Your task to perform on an android device: Turn off the flashlight Image 0: 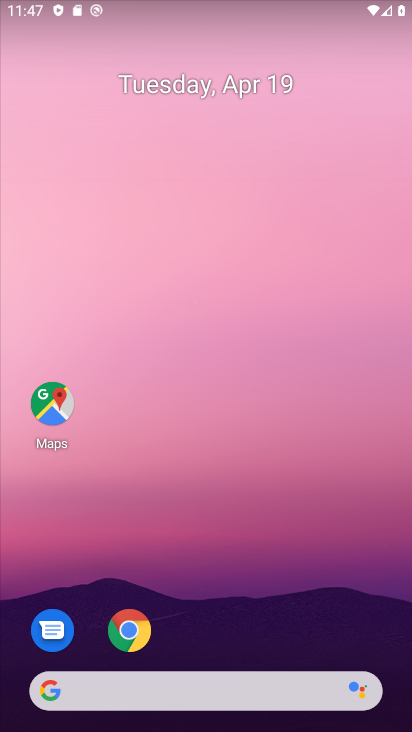
Step 0: drag from (244, 136) to (265, 438)
Your task to perform on an android device: Turn off the flashlight Image 1: 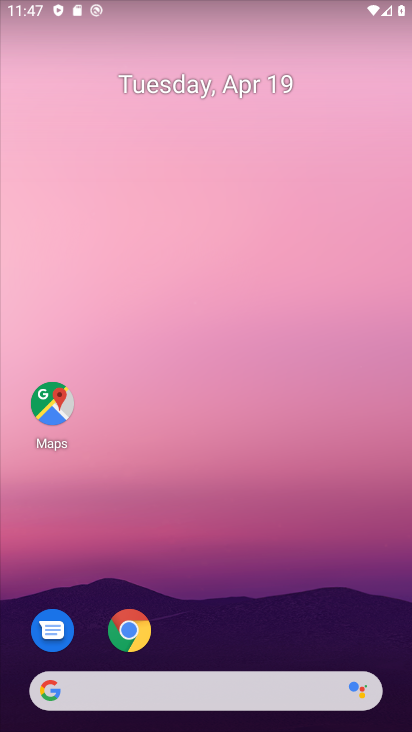
Step 1: drag from (248, 27) to (249, 662)
Your task to perform on an android device: Turn off the flashlight Image 2: 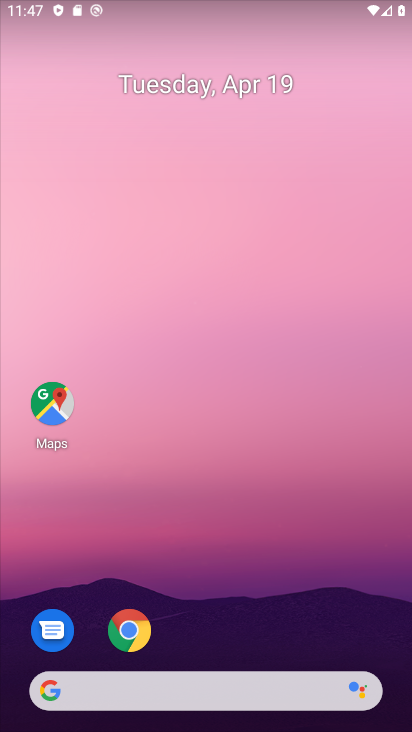
Step 2: drag from (215, 36) to (223, 600)
Your task to perform on an android device: Turn off the flashlight Image 3: 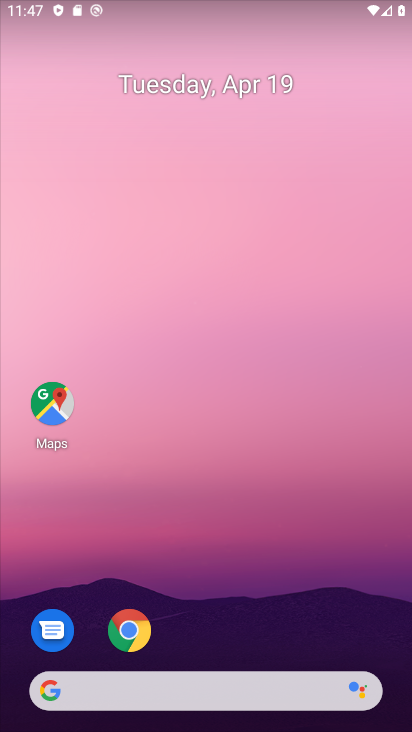
Step 3: drag from (257, 33) to (215, 613)
Your task to perform on an android device: Turn off the flashlight Image 4: 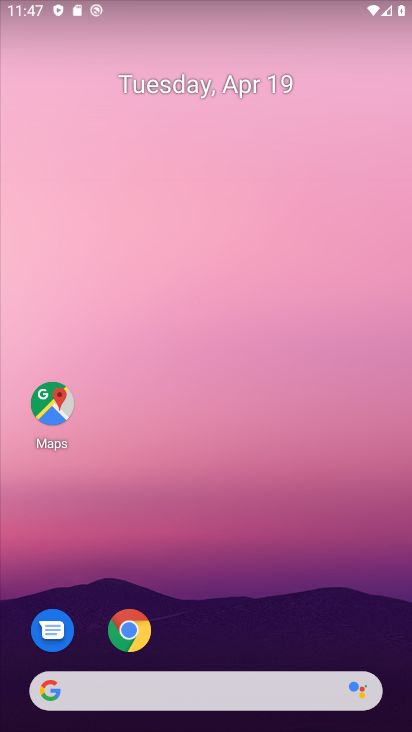
Step 4: drag from (285, 20) to (268, 542)
Your task to perform on an android device: Turn off the flashlight Image 5: 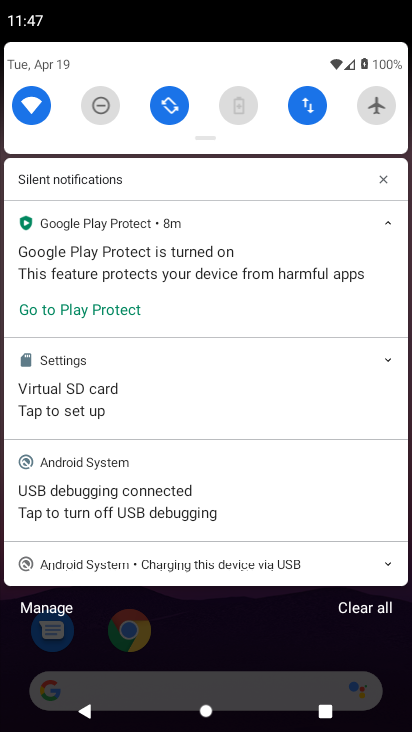
Step 5: drag from (204, 143) to (160, 557)
Your task to perform on an android device: Turn off the flashlight Image 6: 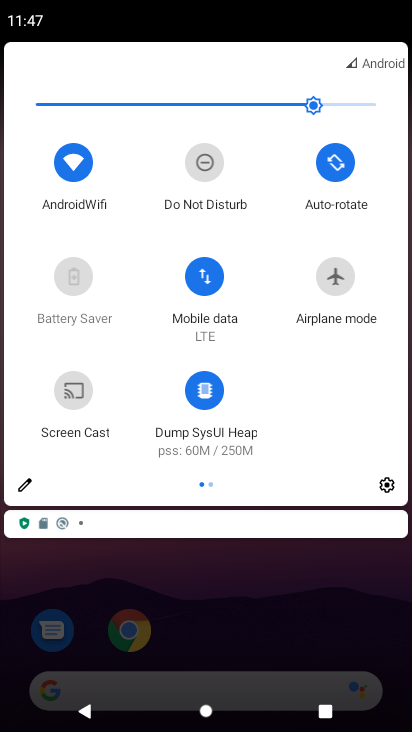
Step 6: click (17, 479)
Your task to perform on an android device: Turn off the flashlight Image 7: 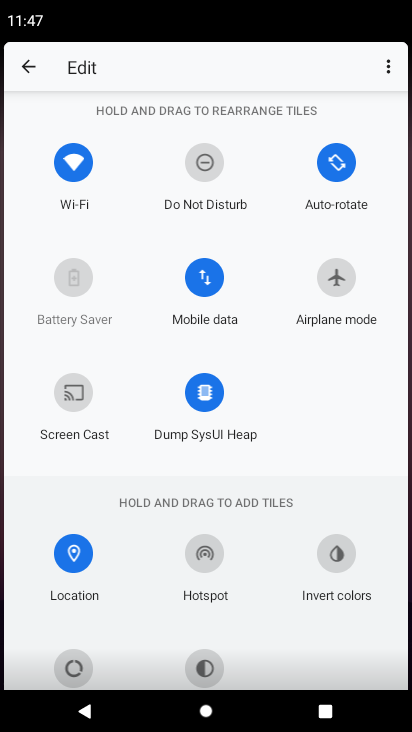
Step 7: task complete